Your task to perform on an android device: Open display settings Image 0: 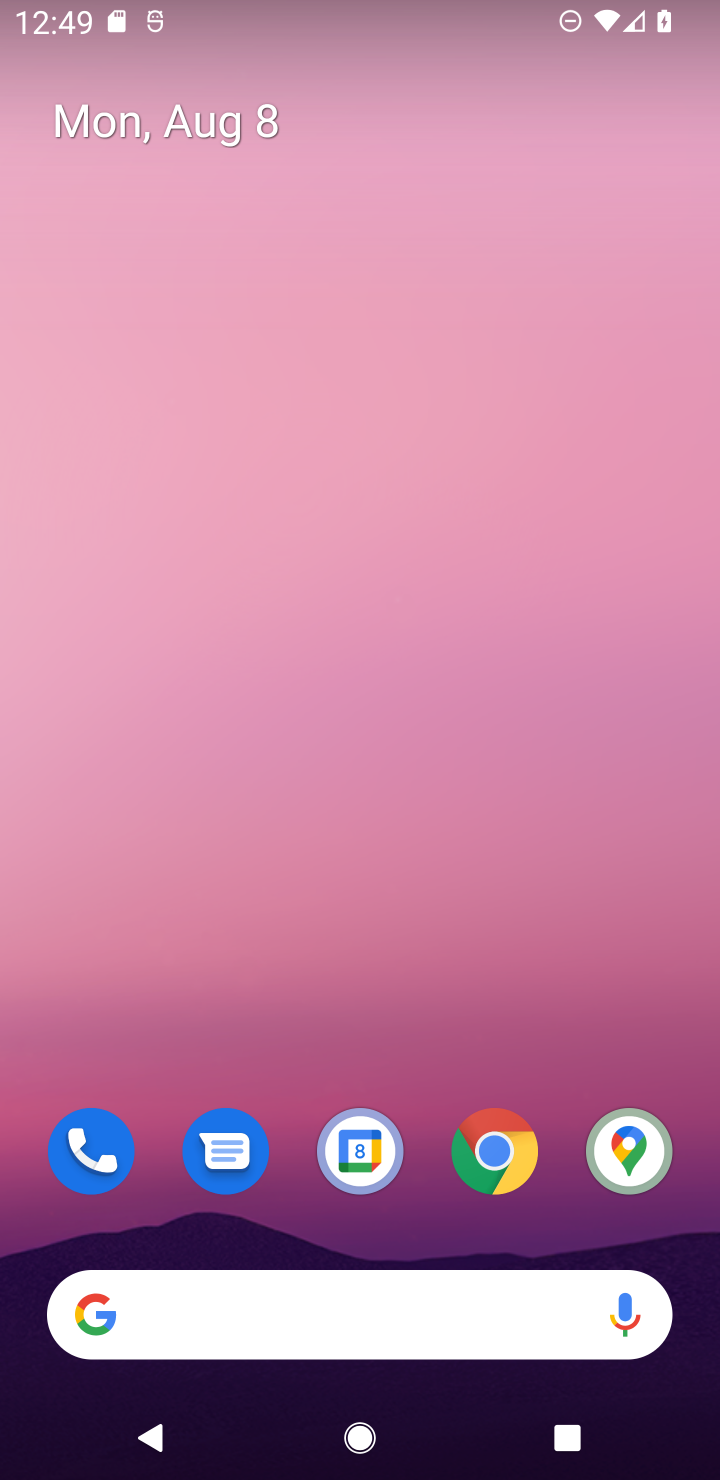
Step 0: drag from (349, 1273) to (424, 313)
Your task to perform on an android device: Open display settings Image 1: 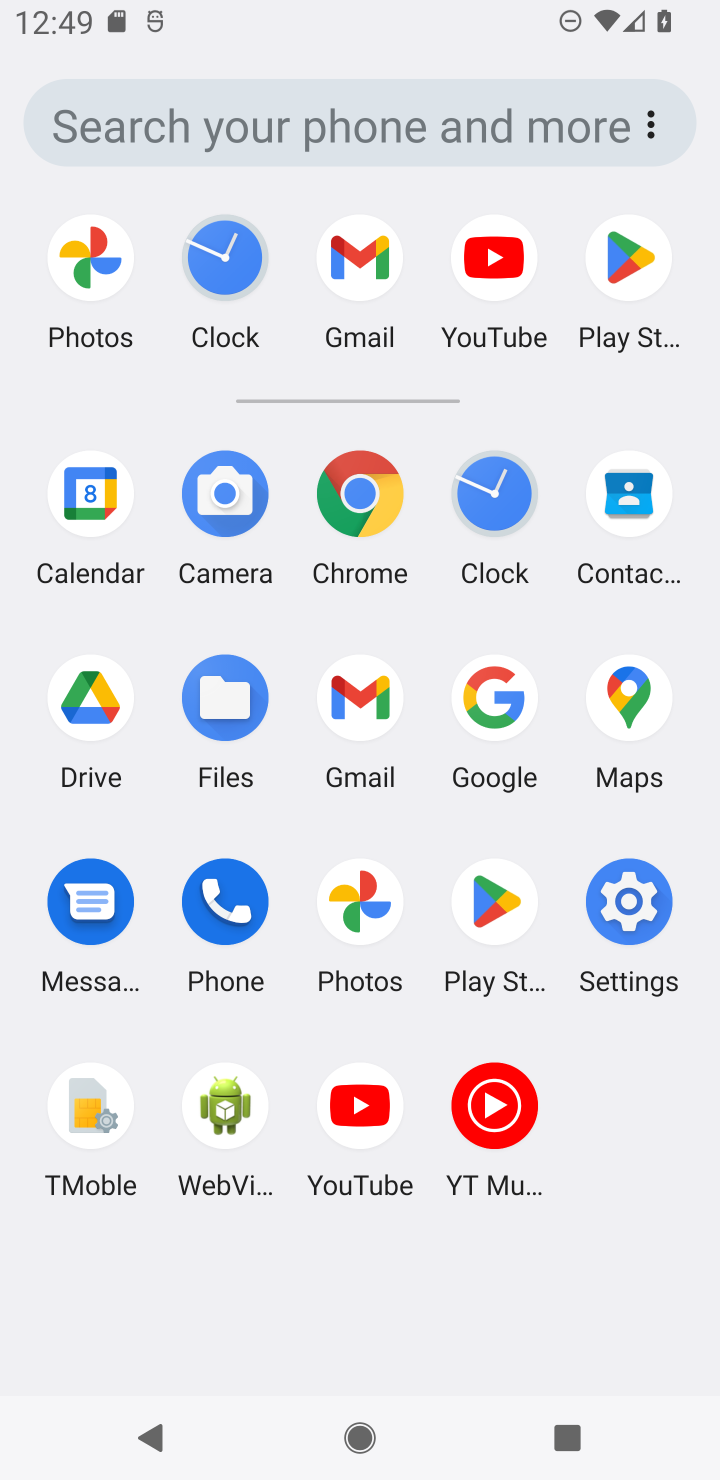
Step 1: click (620, 910)
Your task to perform on an android device: Open display settings Image 2: 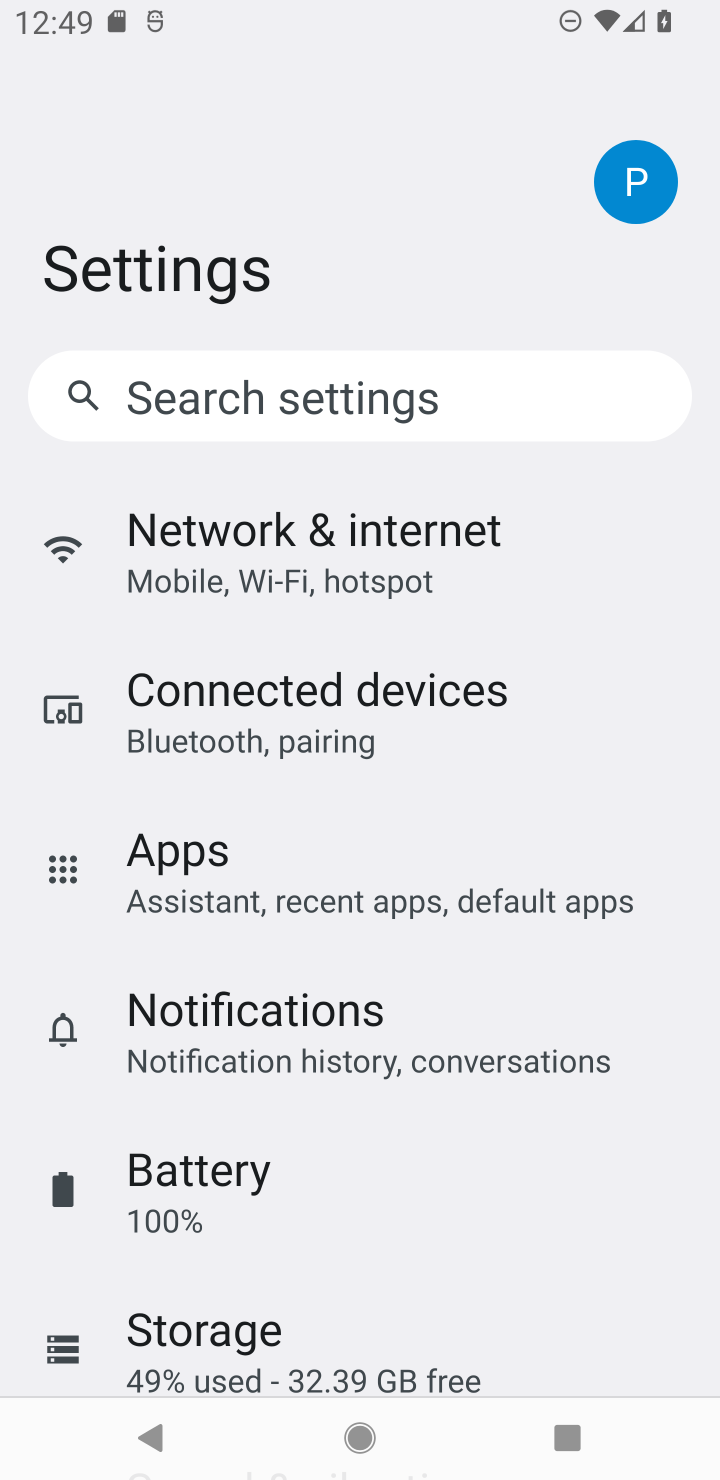
Step 2: drag from (192, 1307) to (181, 553)
Your task to perform on an android device: Open display settings Image 3: 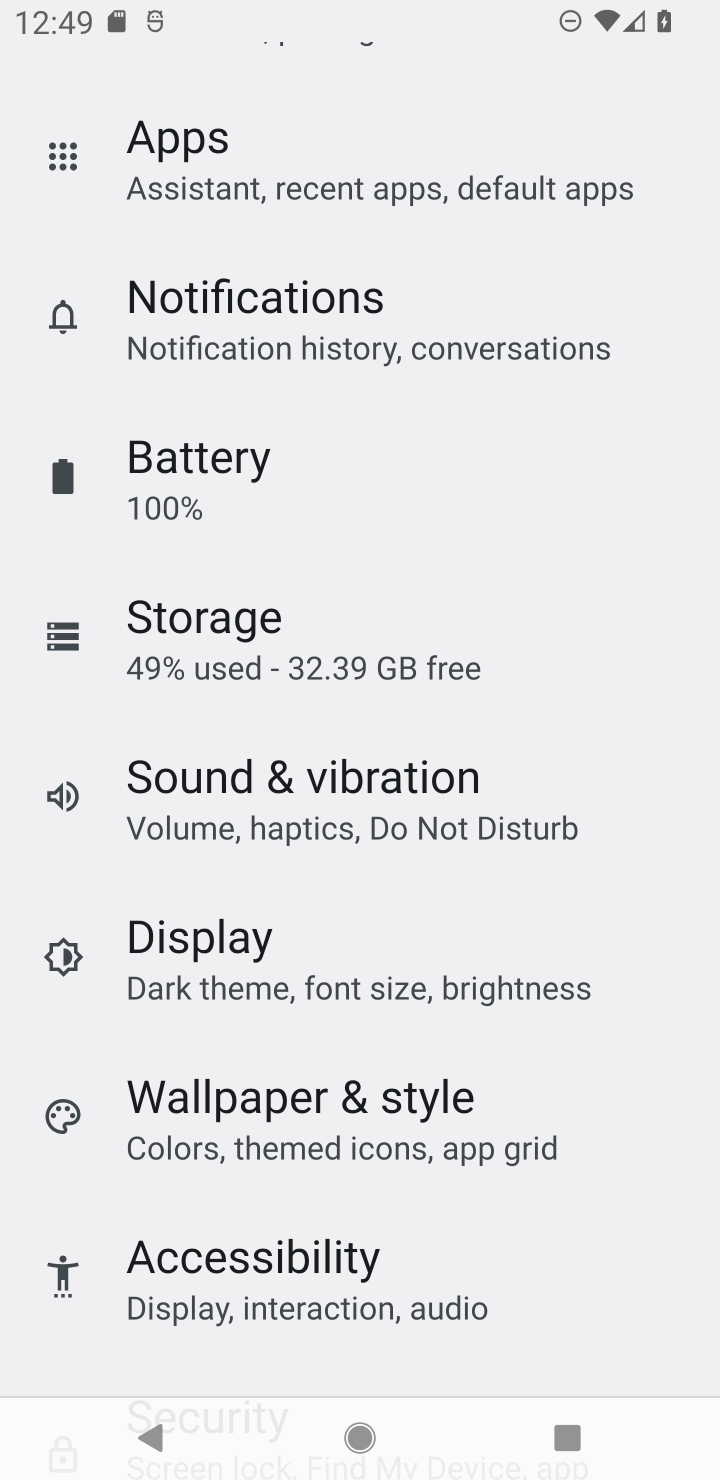
Step 3: click (267, 978)
Your task to perform on an android device: Open display settings Image 4: 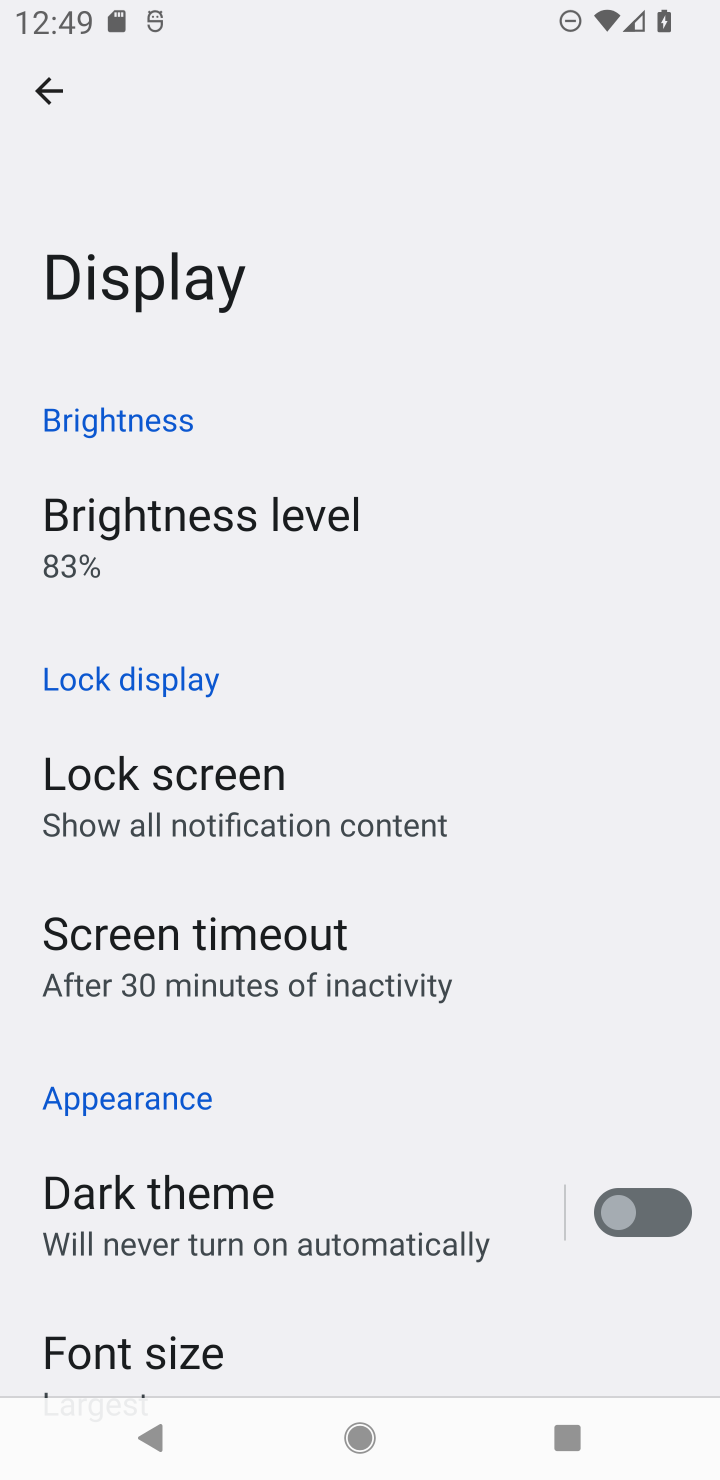
Step 4: task complete